Your task to perform on an android device: What's the weather? Image 0: 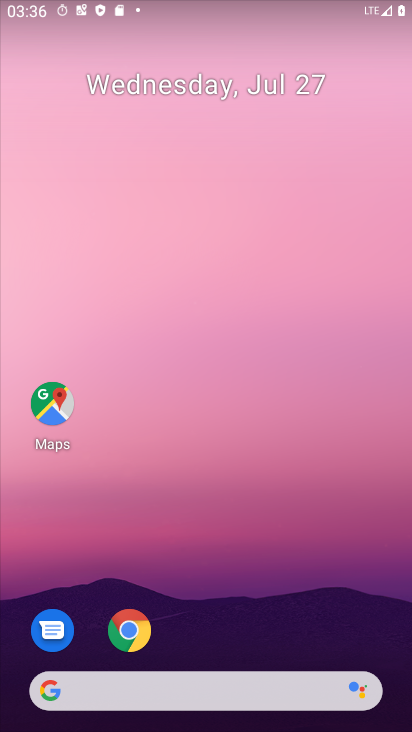
Step 0: drag from (270, 686) to (233, 347)
Your task to perform on an android device: What's the weather? Image 1: 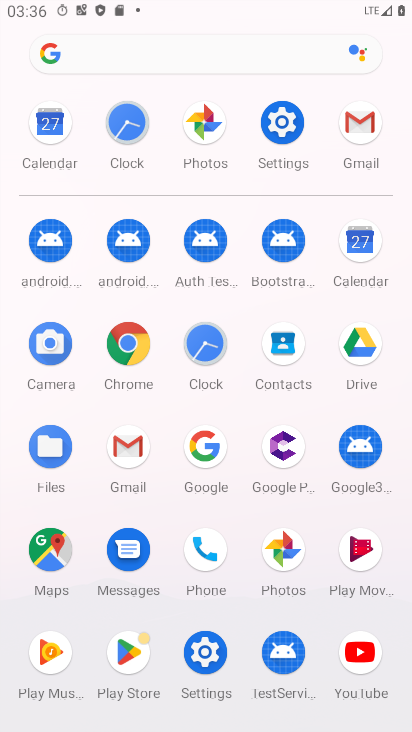
Step 1: drag from (230, 623) to (213, 154)
Your task to perform on an android device: What's the weather? Image 2: 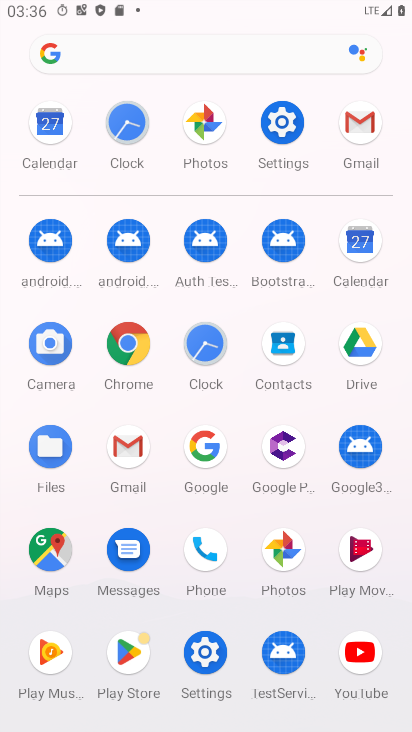
Step 2: click (136, 356)
Your task to perform on an android device: What's the weather? Image 3: 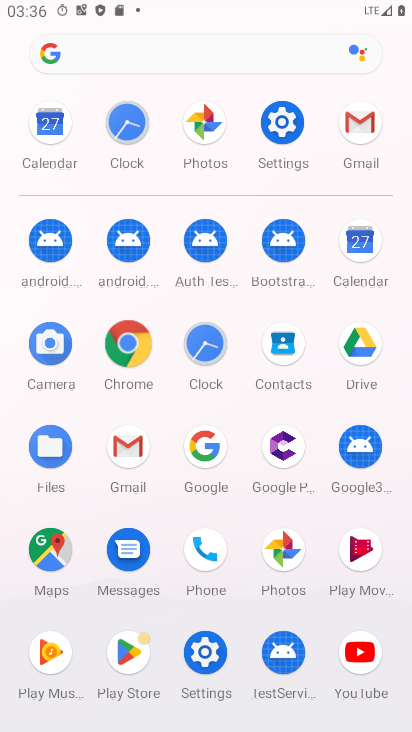
Step 3: click (138, 352)
Your task to perform on an android device: What's the weather? Image 4: 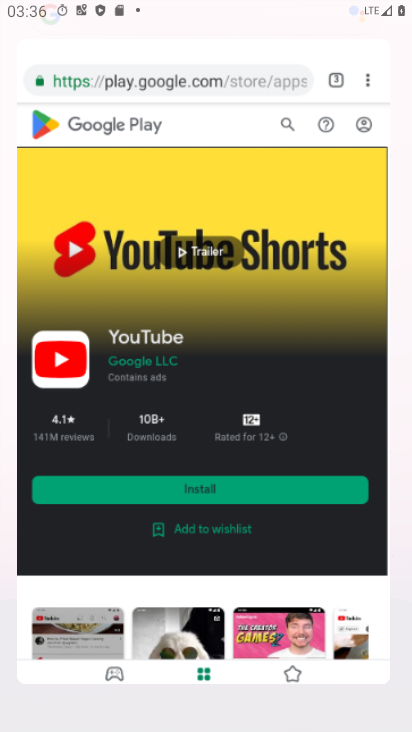
Step 4: click (139, 353)
Your task to perform on an android device: What's the weather? Image 5: 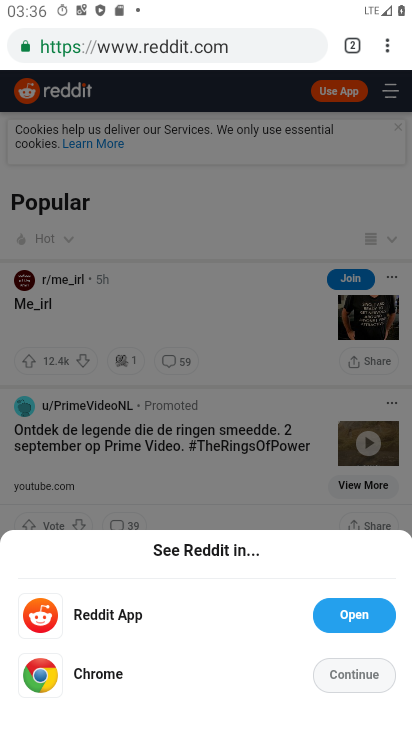
Step 5: press back button
Your task to perform on an android device: What's the weather? Image 6: 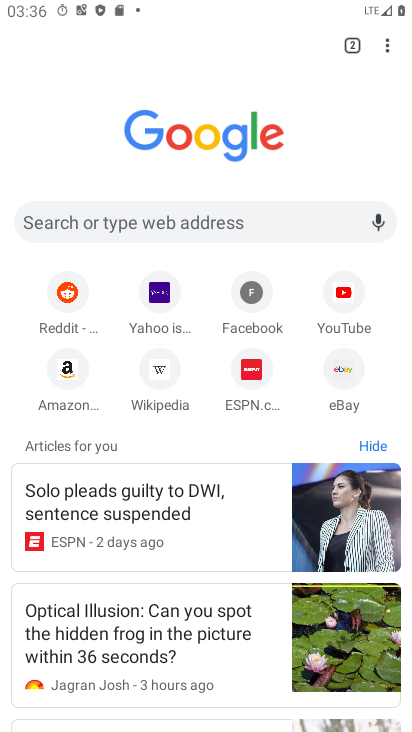
Step 6: click (45, 222)
Your task to perform on an android device: What's the weather? Image 7: 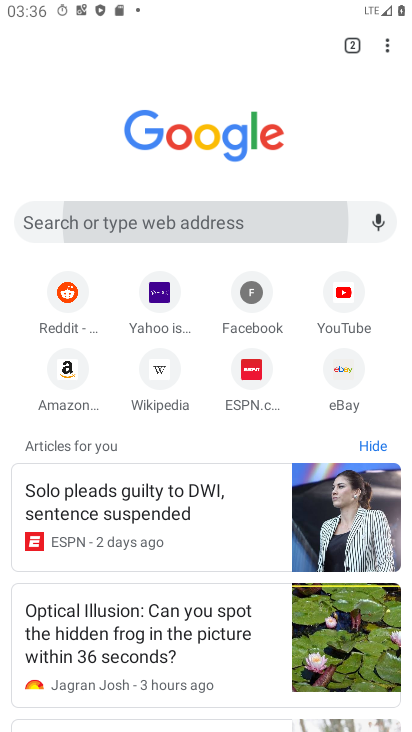
Step 7: click (70, 226)
Your task to perform on an android device: What's the weather? Image 8: 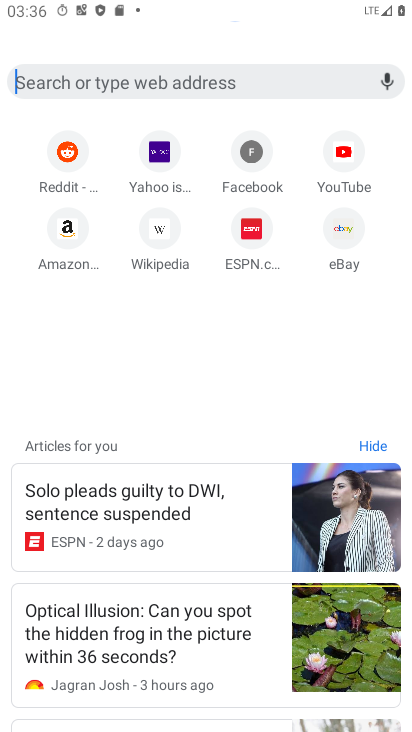
Step 8: click (73, 225)
Your task to perform on an android device: What's the weather? Image 9: 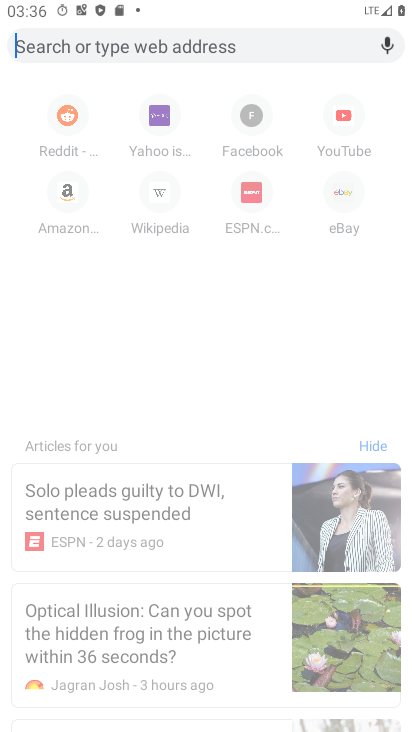
Step 9: click (76, 228)
Your task to perform on an android device: What's the weather? Image 10: 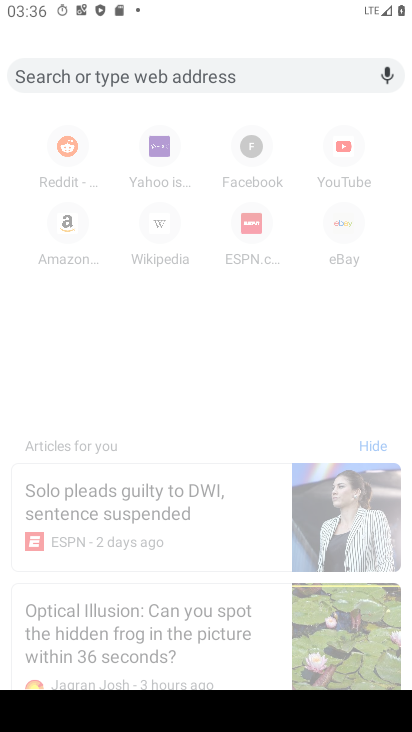
Step 10: click (78, 228)
Your task to perform on an android device: What's the weather? Image 11: 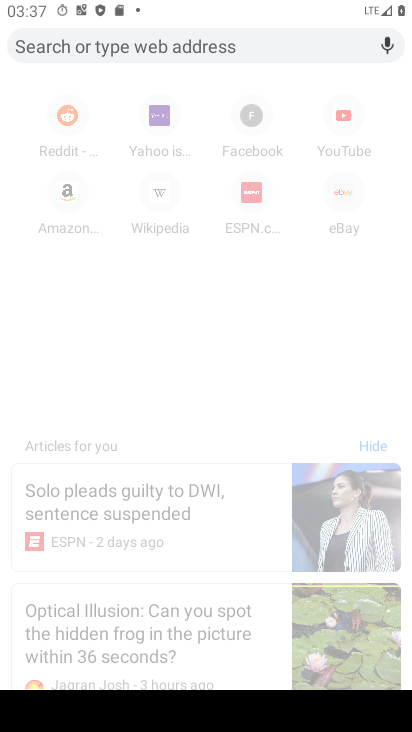
Step 11: type "weather"
Your task to perform on an android device: What's the weather? Image 12: 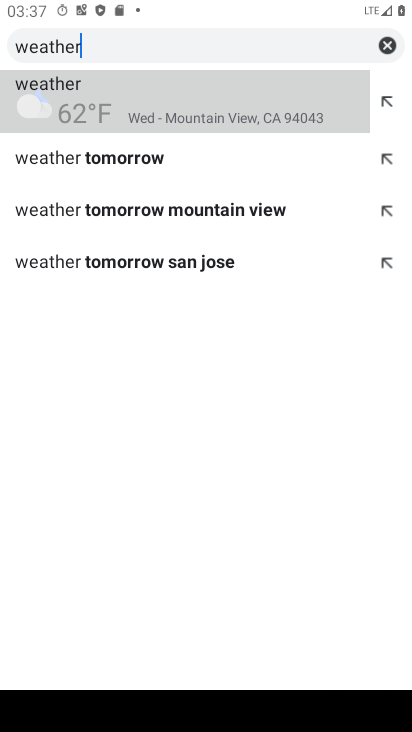
Step 12: click (157, 135)
Your task to perform on an android device: What's the weather? Image 13: 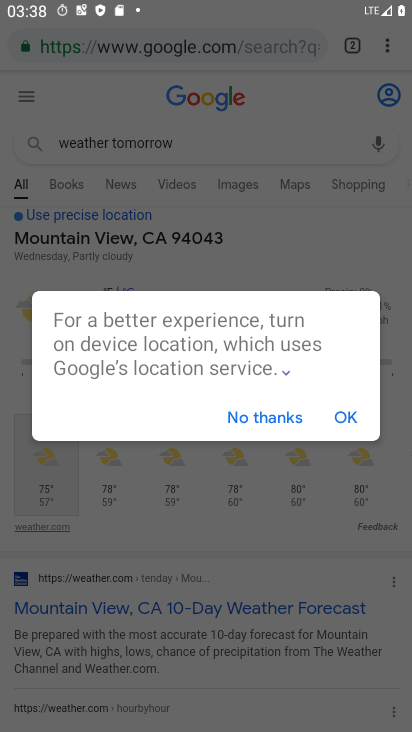
Step 13: click (346, 418)
Your task to perform on an android device: What's the weather? Image 14: 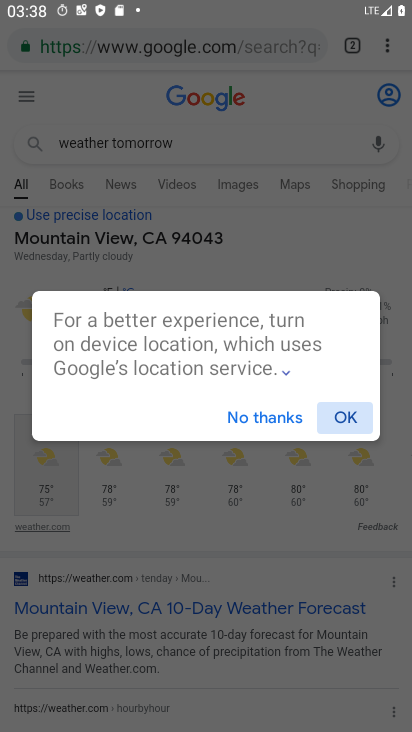
Step 14: click (346, 418)
Your task to perform on an android device: What's the weather? Image 15: 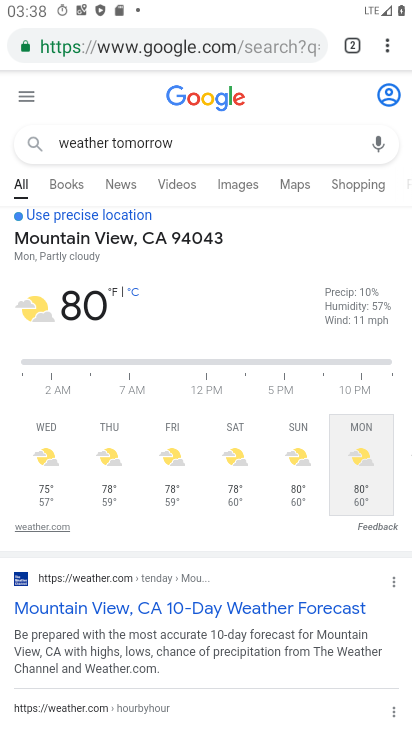
Step 15: task complete